Your task to perform on an android device: visit the assistant section in the google photos Image 0: 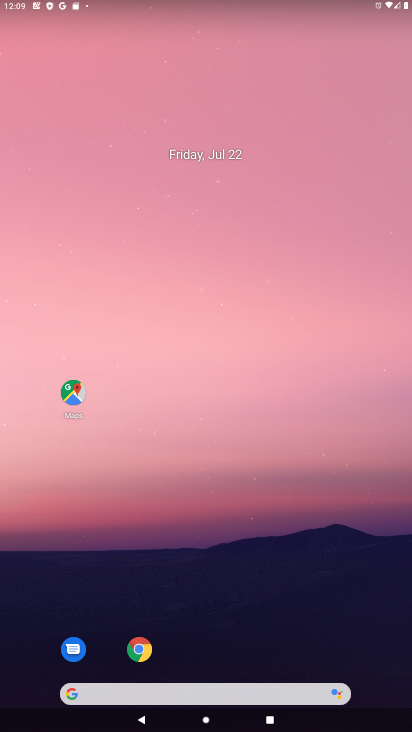
Step 0: drag from (317, 576) to (260, 7)
Your task to perform on an android device: visit the assistant section in the google photos Image 1: 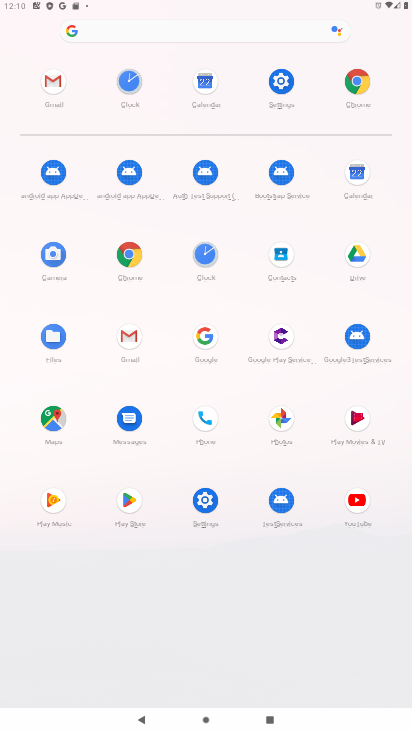
Step 1: click (283, 424)
Your task to perform on an android device: visit the assistant section in the google photos Image 2: 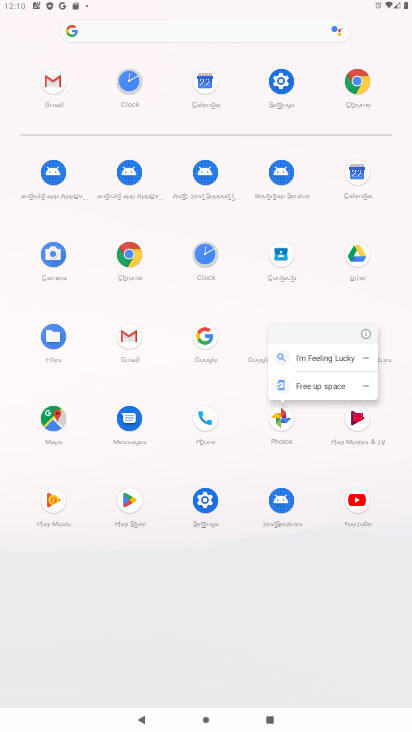
Step 2: click (283, 424)
Your task to perform on an android device: visit the assistant section in the google photos Image 3: 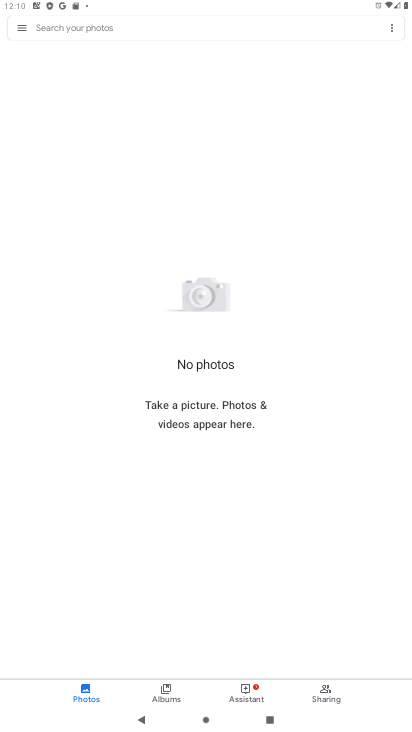
Step 3: click (256, 687)
Your task to perform on an android device: visit the assistant section in the google photos Image 4: 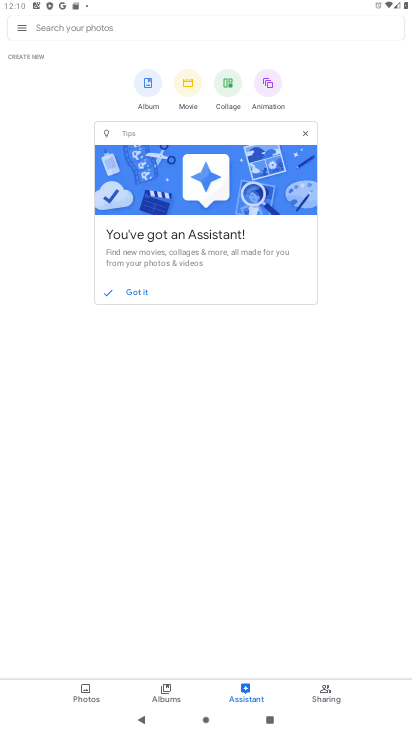
Step 4: task complete